Your task to perform on an android device: Open Yahoo.com Image 0: 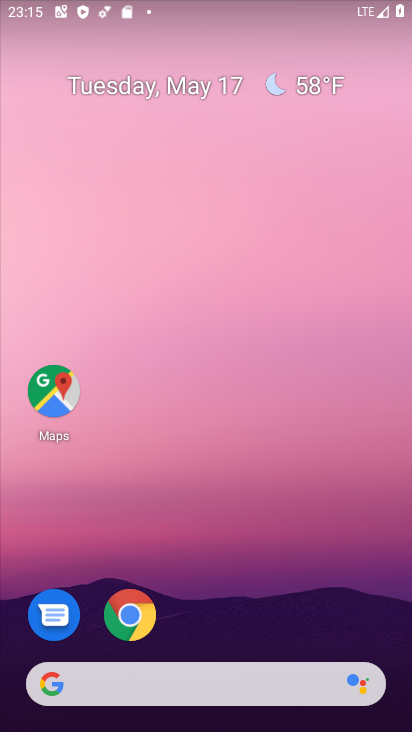
Step 0: click (139, 610)
Your task to perform on an android device: Open Yahoo.com Image 1: 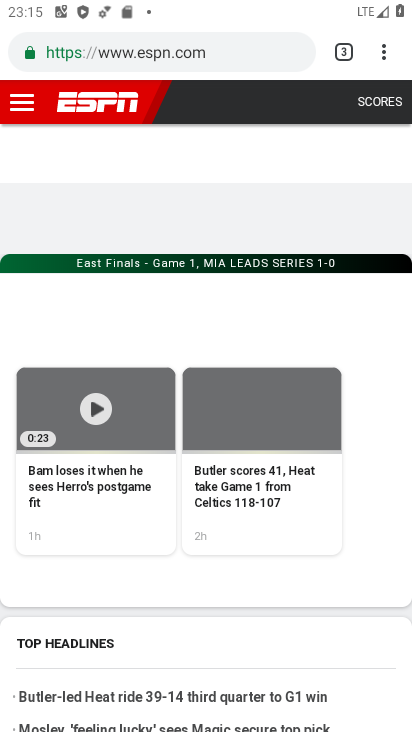
Step 1: click (336, 51)
Your task to perform on an android device: Open Yahoo.com Image 2: 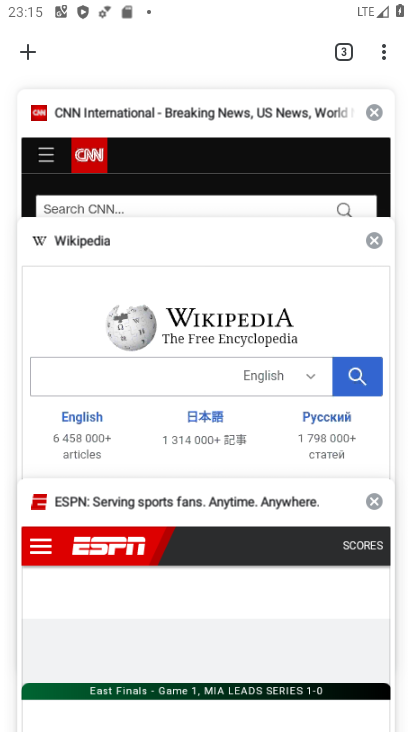
Step 2: click (27, 50)
Your task to perform on an android device: Open Yahoo.com Image 3: 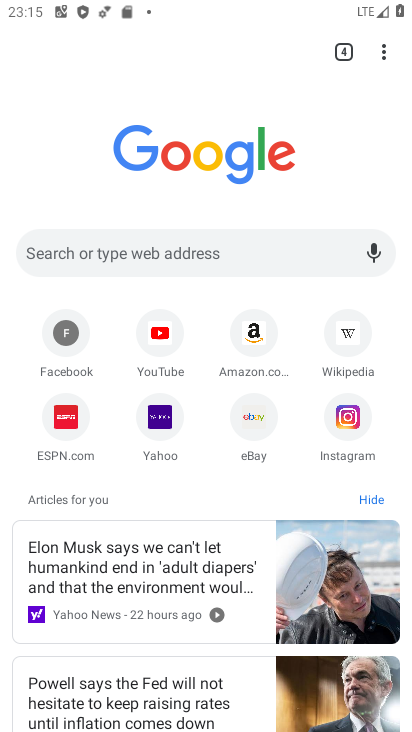
Step 3: click (149, 416)
Your task to perform on an android device: Open Yahoo.com Image 4: 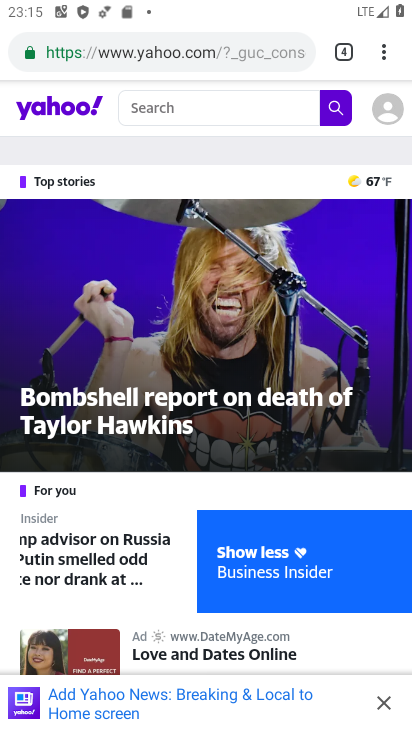
Step 4: task complete